Your task to perform on an android device: check android version Image 0: 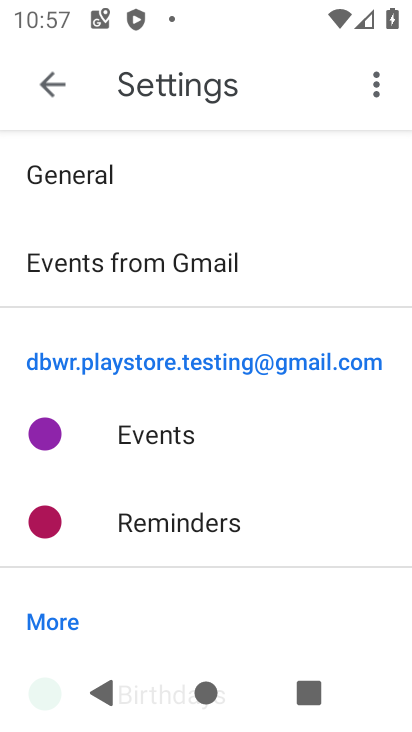
Step 0: press home button
Your task to perform on an android device: check android version Image 1: 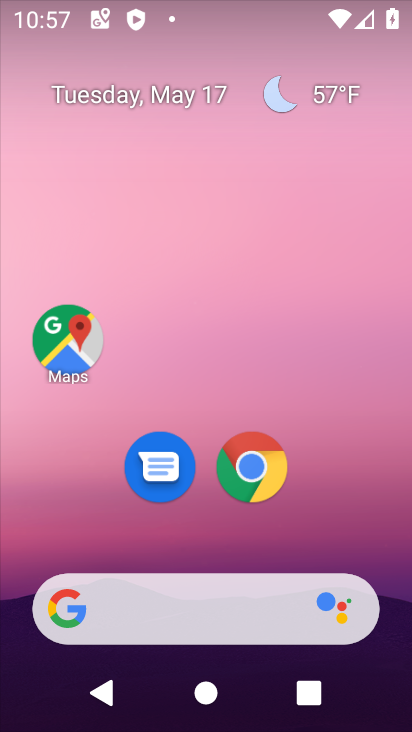
Step 1: drag from (221, 395) to (221, 114)
Your task to perform on an android device: check android version Image 2: 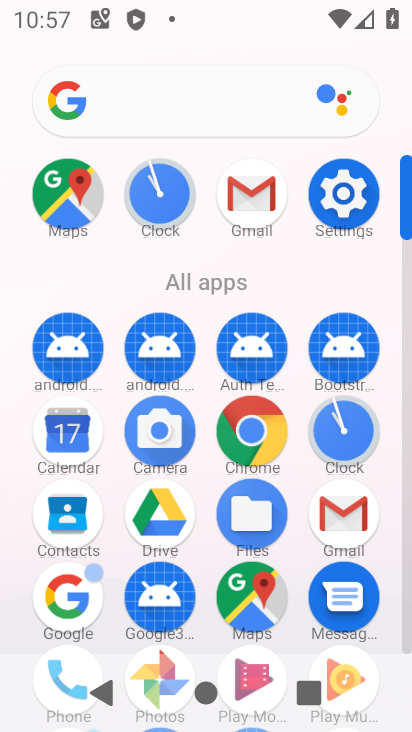
Step 2: click (352, 201)
Your task to perform on an android device: check android version Image 3: 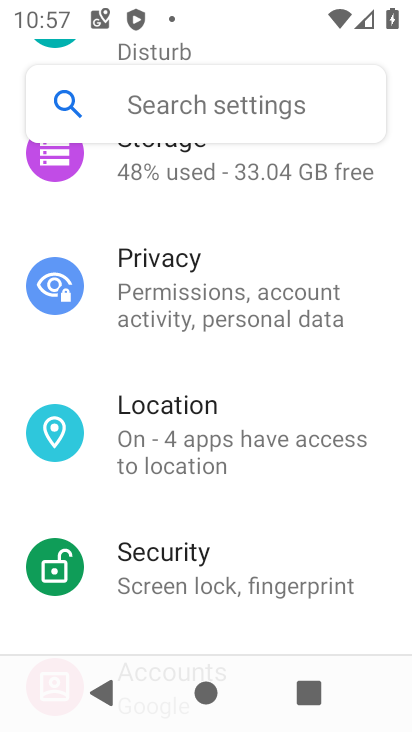
Step 3: task complete